Your task to perform on an android device: turn on the 24-hour format for clock Image 0: 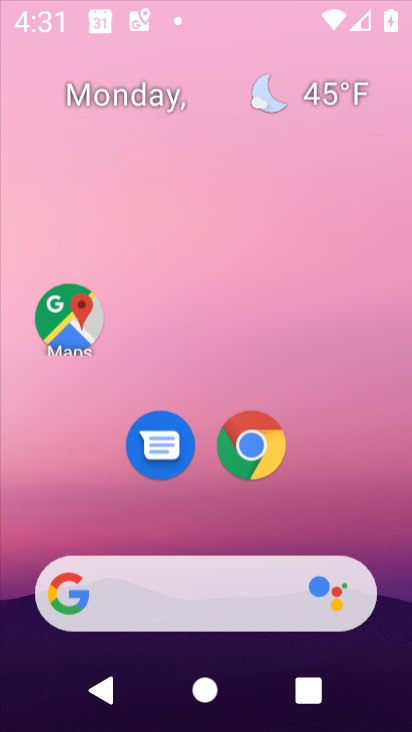
Step 0: click (351, 392)
Your task to perform on an android device: turn on the 24-hour format for clock Image 1: 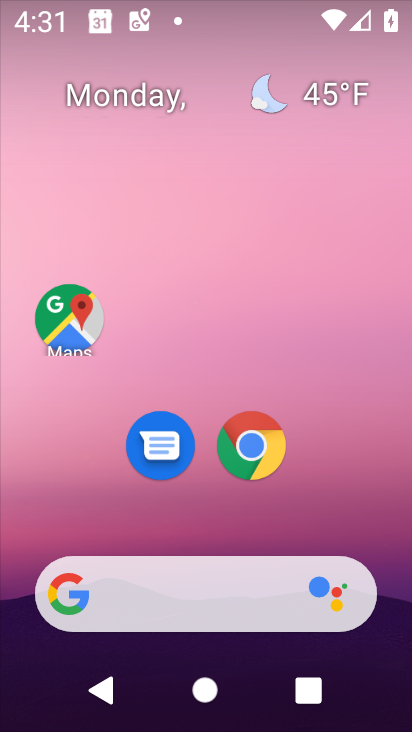
Step 1: drag from (321, 523) to (258, 106)
Your task to perform on an android device: turn on the 24-hour format for clock Image 2: 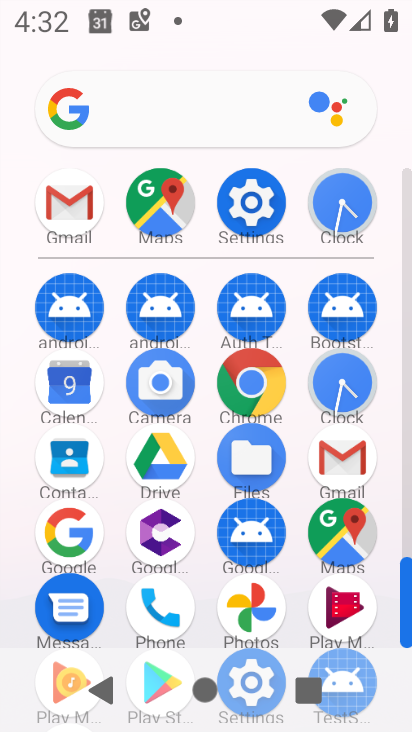
Step 2: click (345, 401)
Your task to perform on an android device: turn on the 24-hour format for clock Image 3: 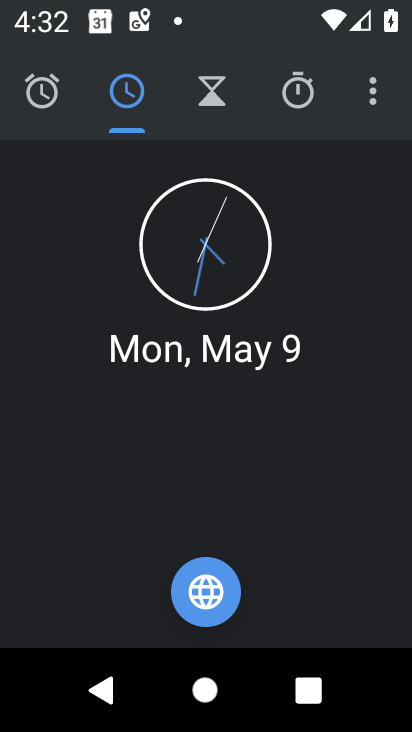
Step 3: click (368, 98)
Your task to perform on an android device: turn on the 24-hour format for clock Image 4: 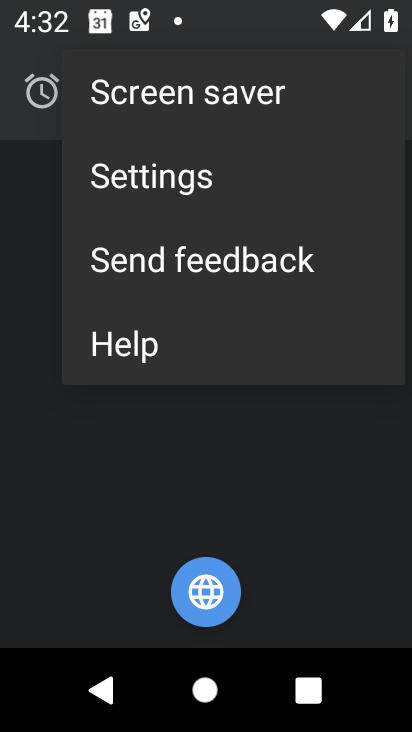
Step 4: click (221, 166)
Your task to perform on an android device: turn on the 24-hour format for clock Image 5: 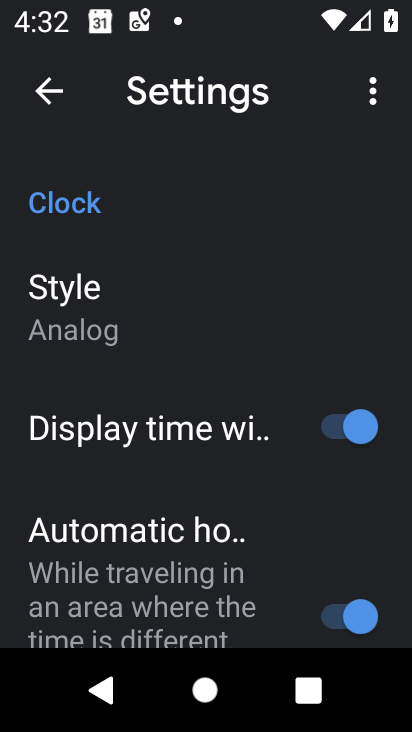
Step 5: drag from (176, 591) to (126, 168)
Your task to perform on an android device: turn on the 24-hour format for clock Image 6: 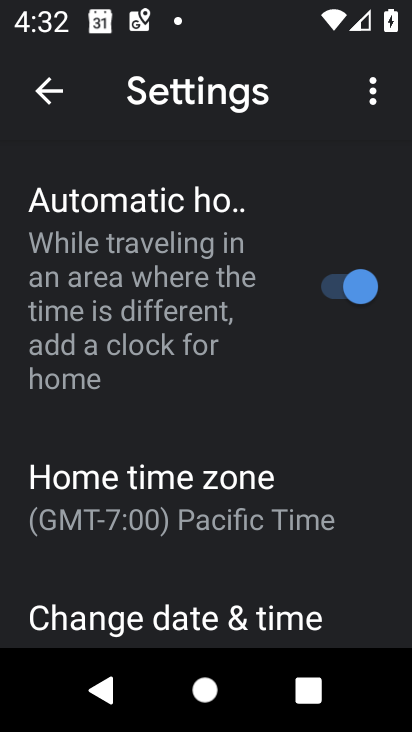
Step 6: click (94, 608)
Your task to perform on an android device: turn on the 24-hour format for clock Image 7: 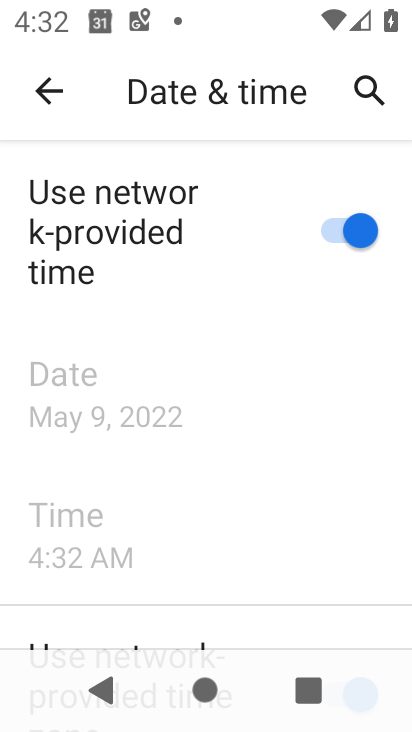
Step 7: drag from (130, 514) to (100, 90)
Your task to perform on an android device: turn on the 24-hour format for clock Image 8: 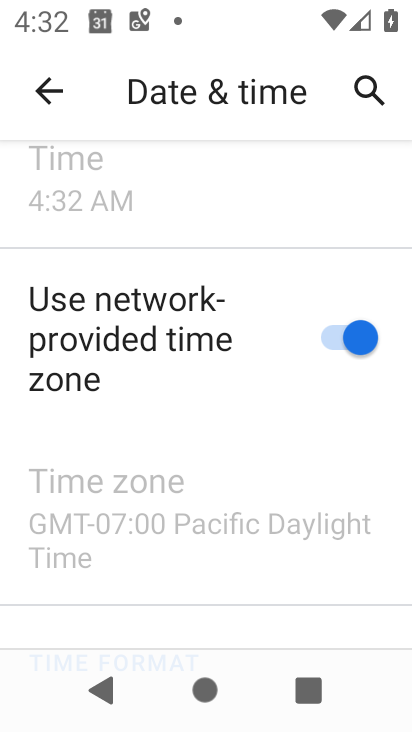
Step 8: drag from (219, 561) to (242, 84)
Your task to perform on an android device: turn on the 24-hour format for clock Image 9: 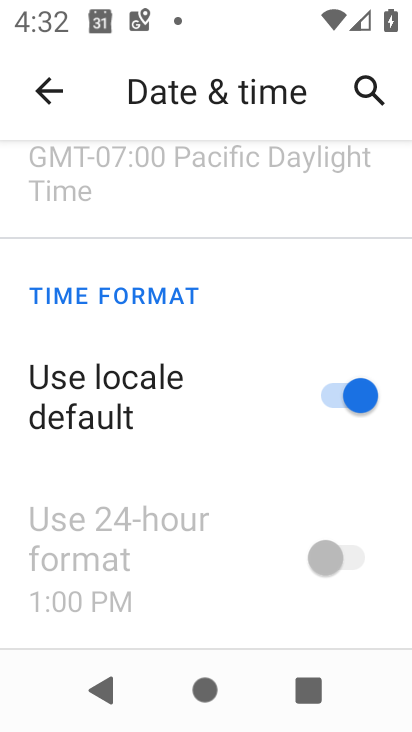
Step 9: click (353, 413)
Your task to perform on an android device: turn on the 24-hour format for clock Image 10: 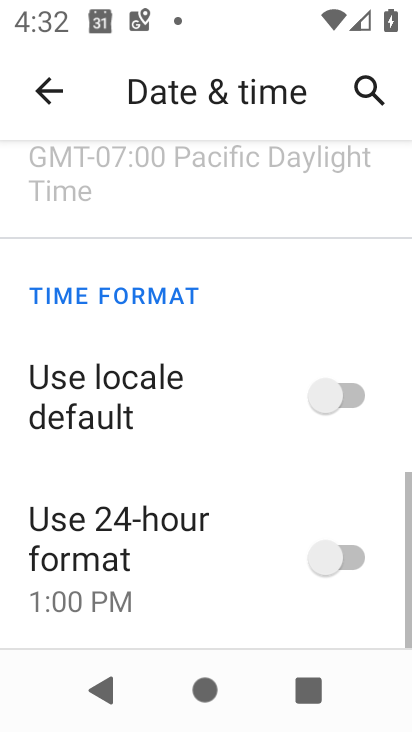
Step 10: click (343, 572)
Your task to perform on an android device: turn on the 24-hour format for clock Image 11: 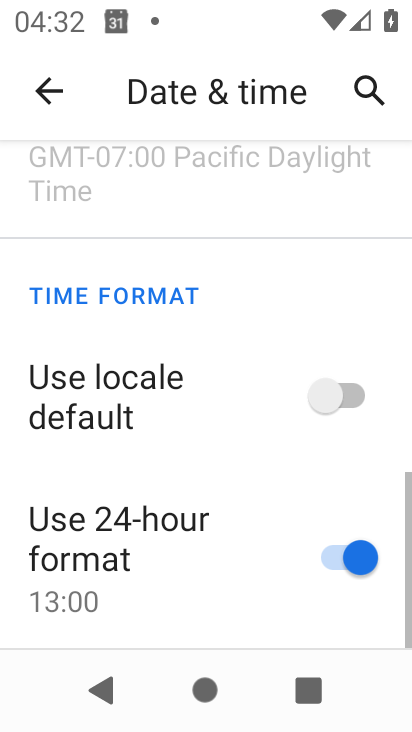
Step 11: task complete